Your task to perform on an android device: check out phone information Image 0: 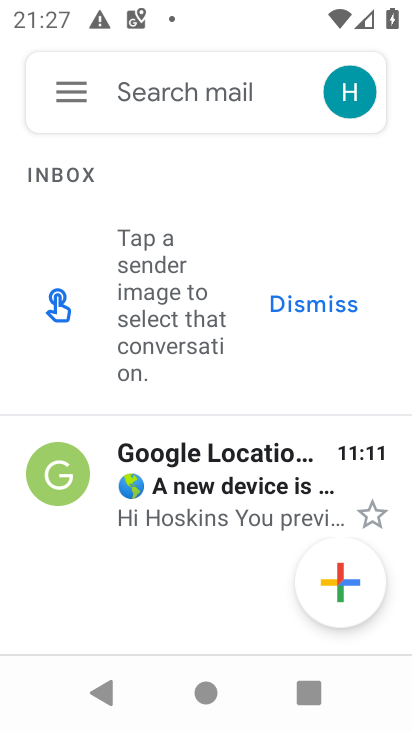
Step 0: press home button
Your task to perform on an android device: check out phone information Image 1: 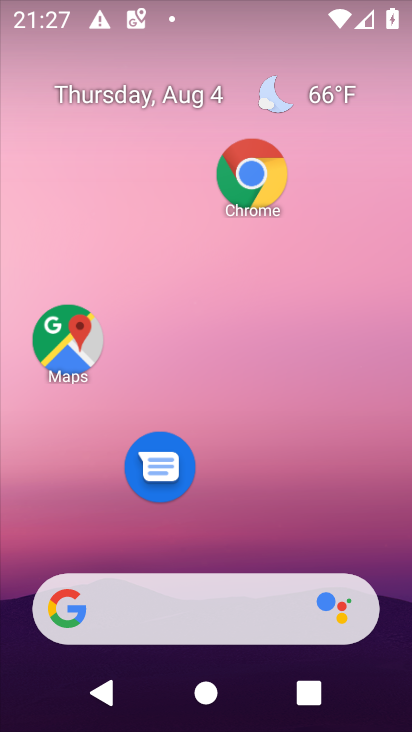
Step 1: drag from (237, 504) to (292, 47)
Your task to perform on an android device: check out phone information Image 2: 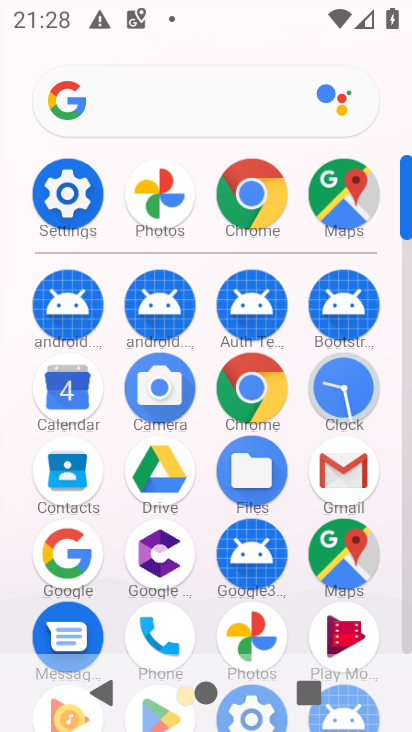
Step 2: click (152, 647)
Your task to perform on an android device: check out phone information Image 3: 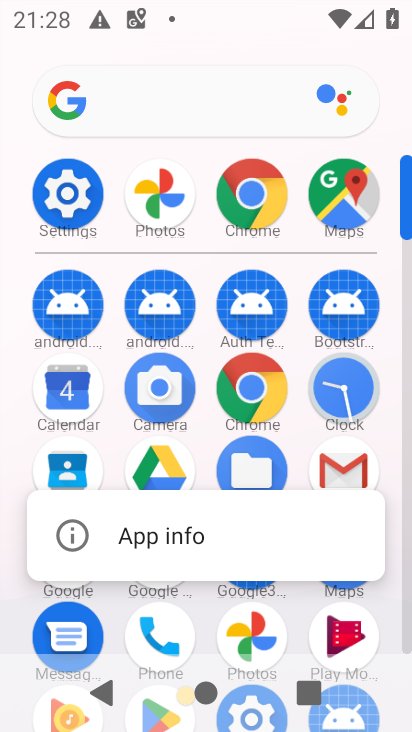
Step 3: click (170, 523)
Your task to perform on an android device: check out phone information Image 4: 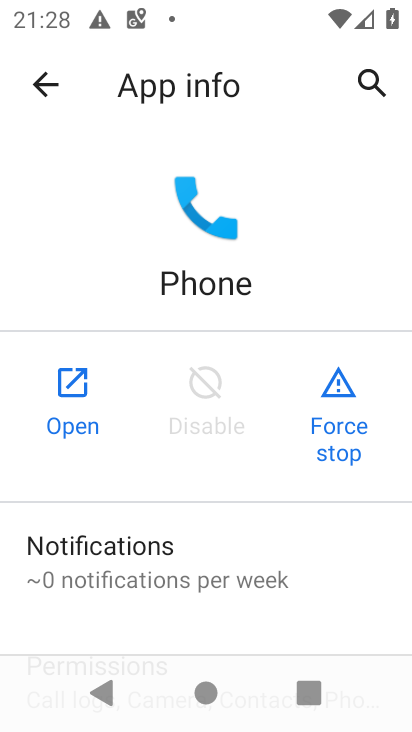
Step 4: task complete